Your task to perform on an android device: open a new tab in the chrome app Image 0: 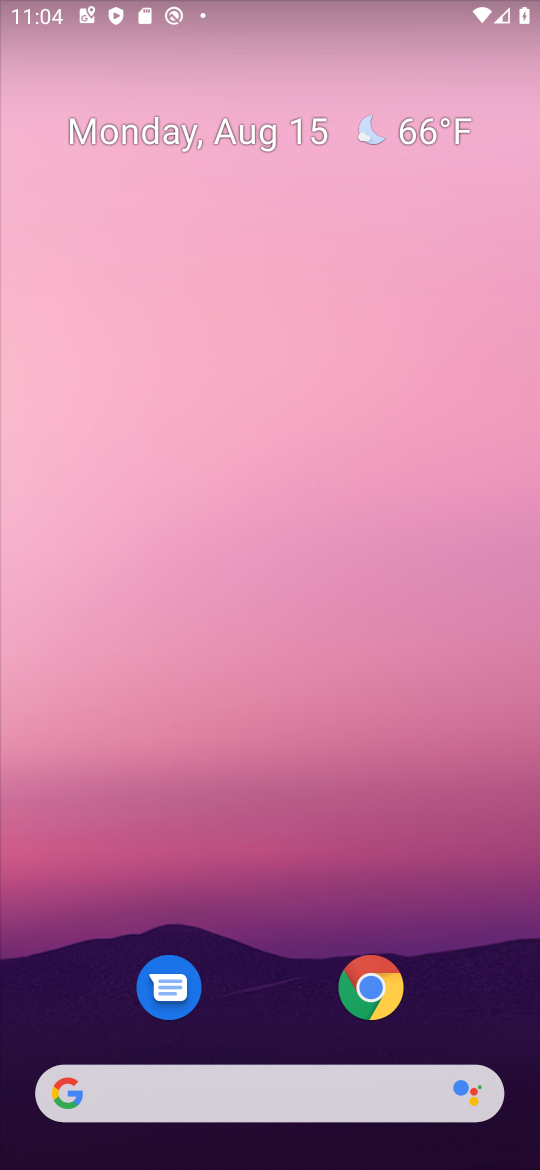
Step 0: drag from (275, 1024) to (191, 177)
Your task to perform on an android device: open a new tab in the chrome app Image 1: 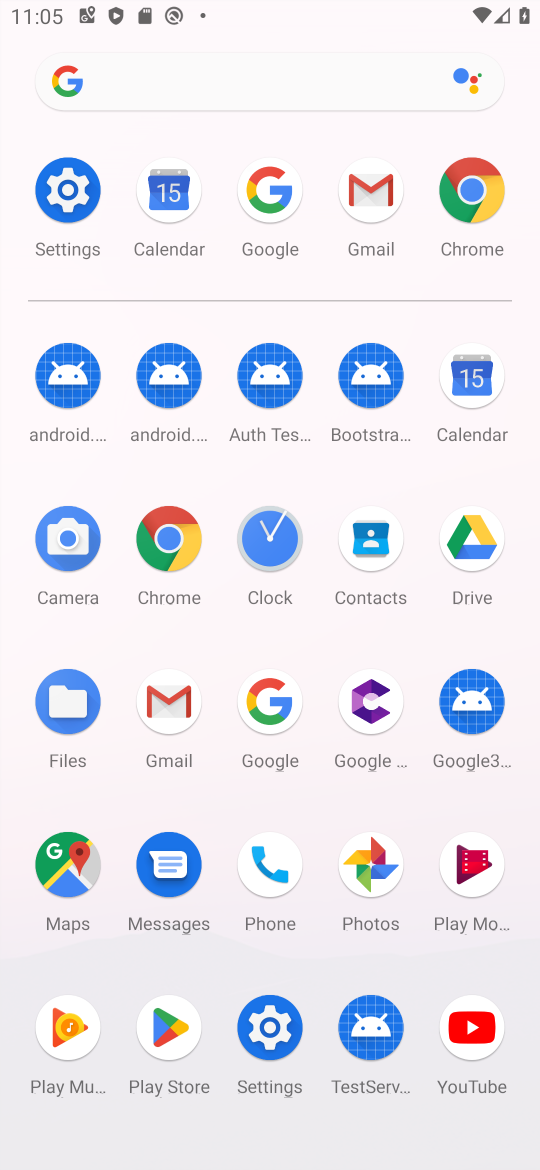
Step 1: click (133, 544)
Your task to perform on an android device: open a new tab in the chrome app Image 2: 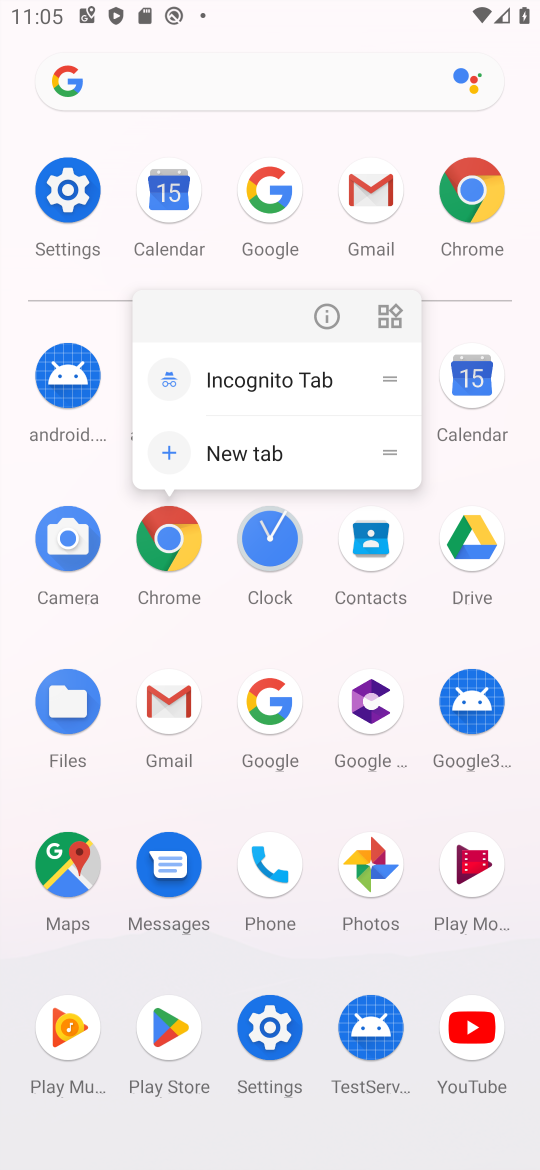
Step 2: click (165, 565)
Your task to perform on an android device: open a new tab in the chrome app Image 3: 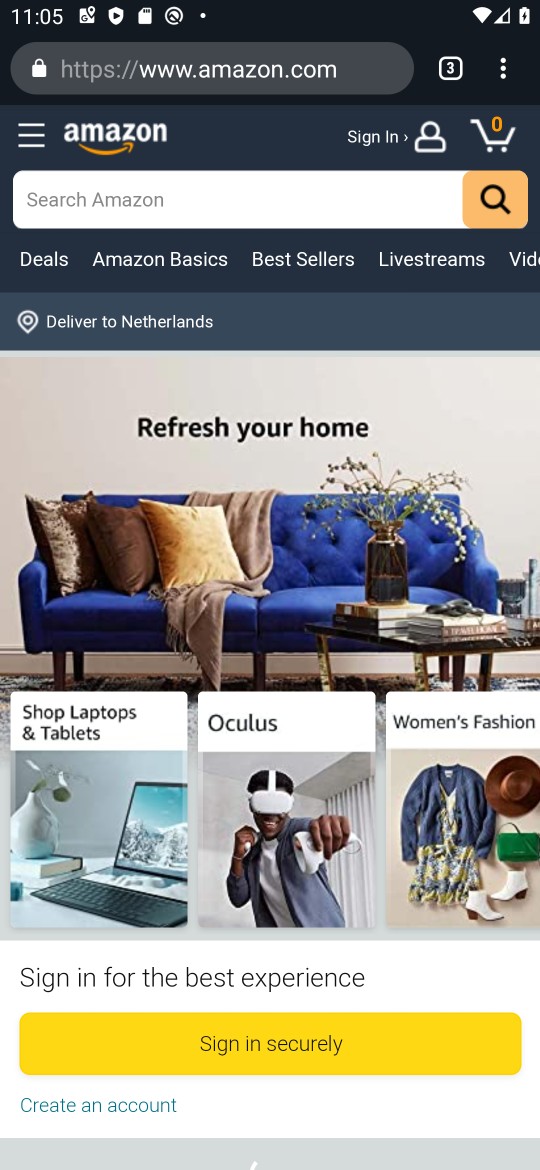
Step 3: click (450, 64)
Your task to perform on an android device: open a new tab in the chrome app Image 4: 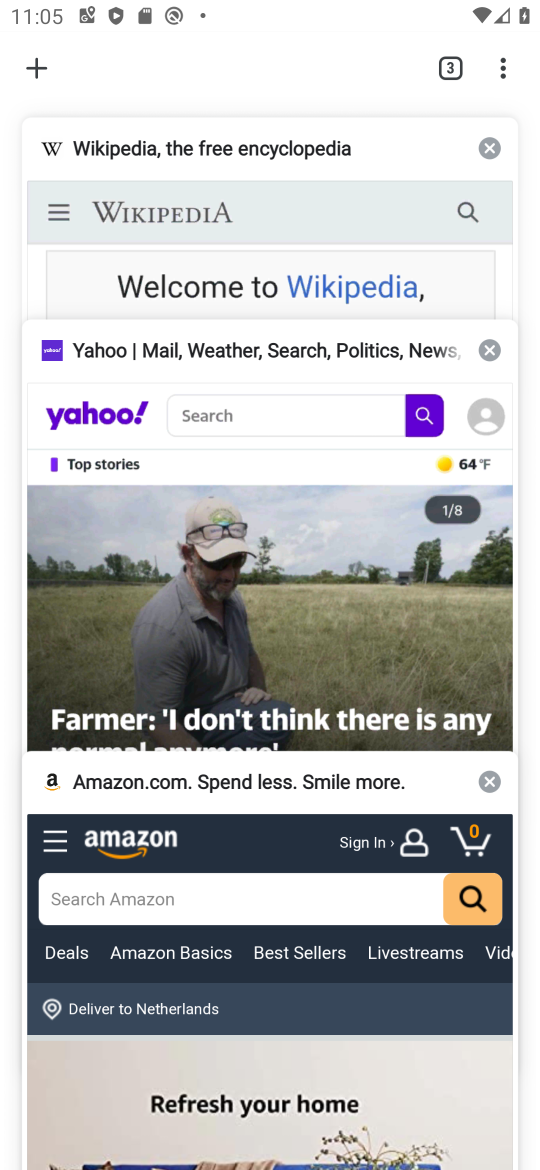
Step 4: click (38, 58)
Your task to perform on an android device: open a new tab in the chrome app Image 5: 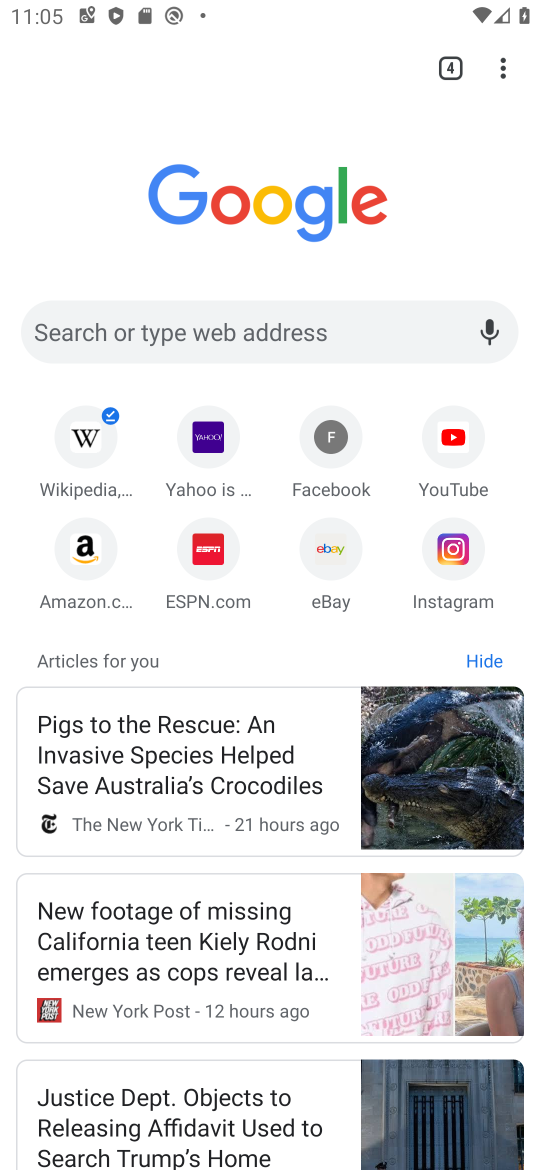
Step 5: task complete